Your task to perform on an android device: Open Maps and search for coffee Image 0: 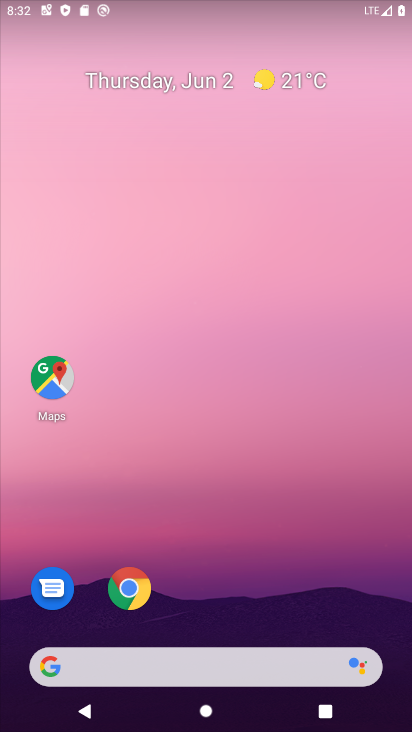
Step 0: drag from (255, 570) to (253, 178)
Your task to perform on an android device: Open Maps and search for coffee Image 1: 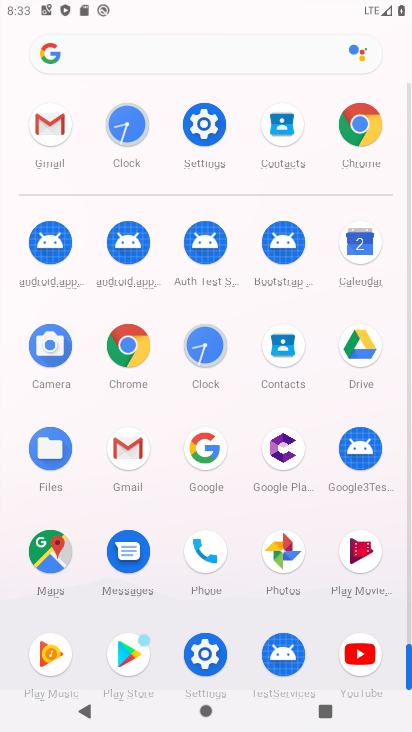
Step 1: drag from (192, 471) to (211, 270)
Your task to perform on an android device: Open Maps and search for coffee Image 2: 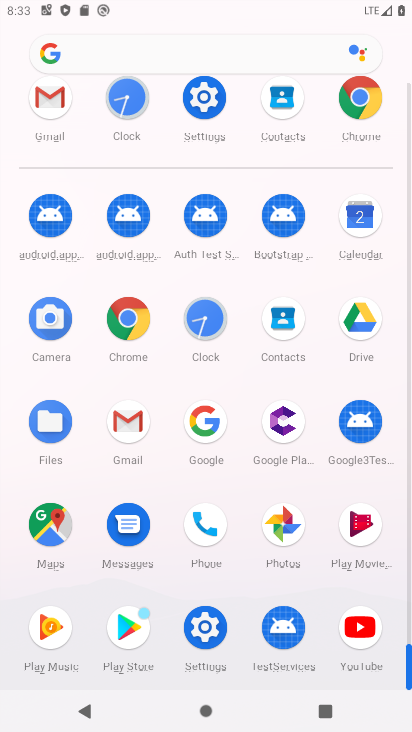
Step 2: click (57, 529)
Your task to perform on an android device: Open Maps and search for coffee Image 3: 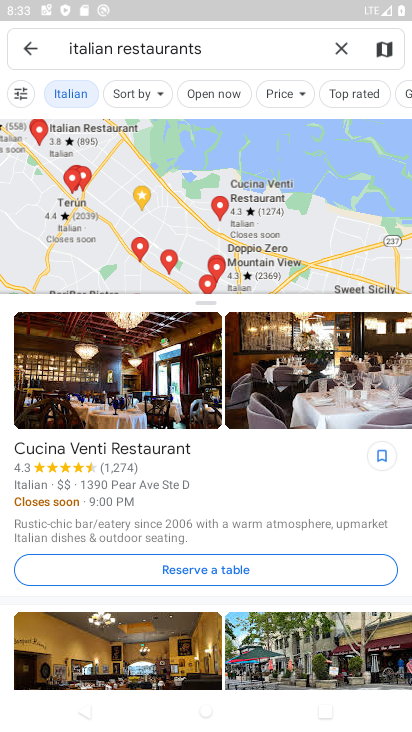
Step 3: click (341, 49)
Your task to perform on an android device: Open Maps and search for coffee Image 4: 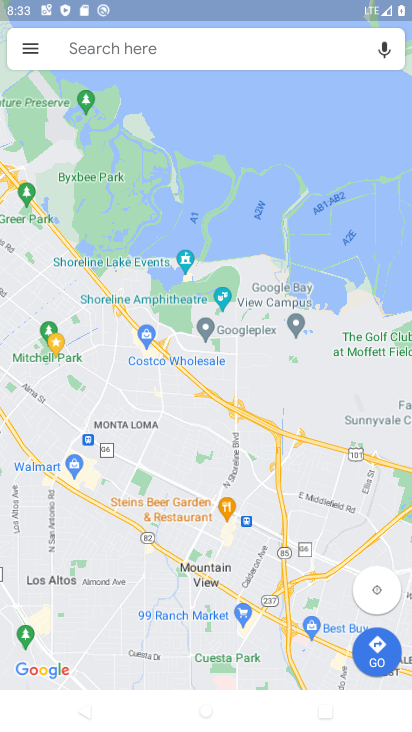
Step 4: click (280, 58)
Your task to perform on an android device: Open Maps and search for coffee Image 5: 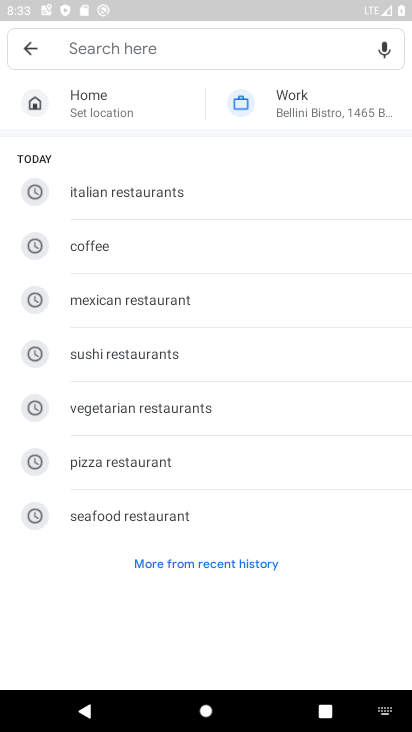
Step 5: click (136, 244)
Your task to perform on an android device: Open Maps and search for coffee Image 6: 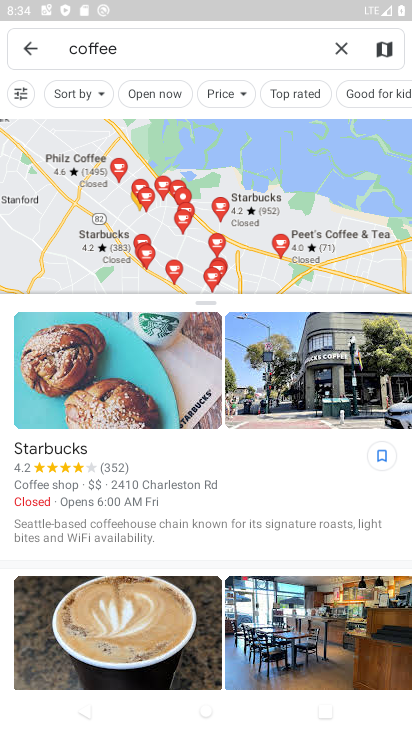
Step 6: task complete